Your task to perform on an android device: Open Chrome and go to settings Image 0: 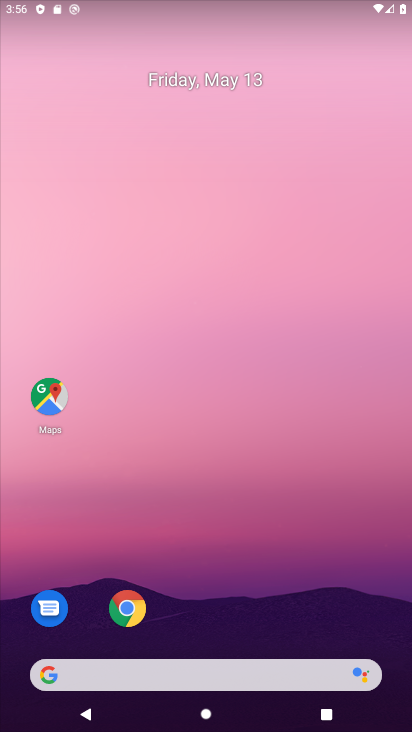
Step 0: drag from (305, 669) to (275, 26)
Your task to perform on an android device: Open Chrome and go to settings Image 1: 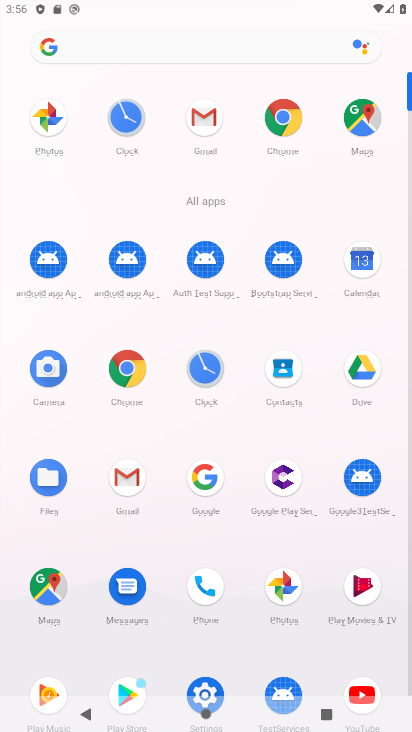
Step 1: click (125, 366)
Your task to perform on an android device: Open Chrome and go to settings Image 2: 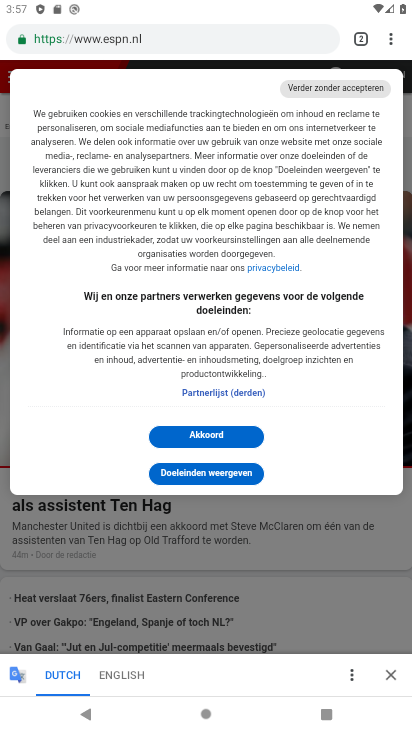
Step 2: click (388, 37)
Your task to perform on an android device: Open Chrome and go to settings Image 3: 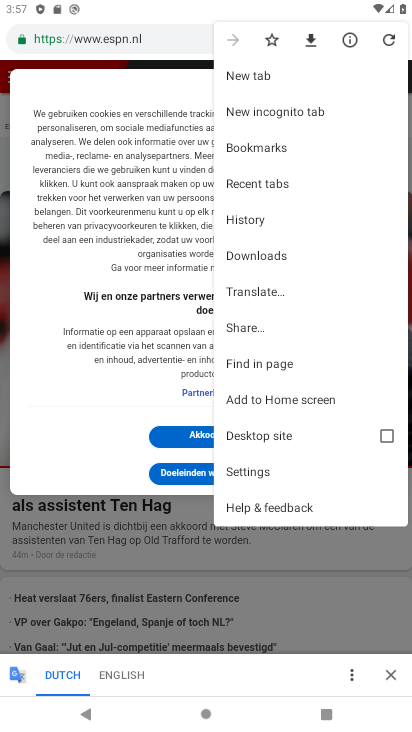
Step 3: click (271, 469)
Your task to perform on an android device: Open Chrome and go to settings Image 4: 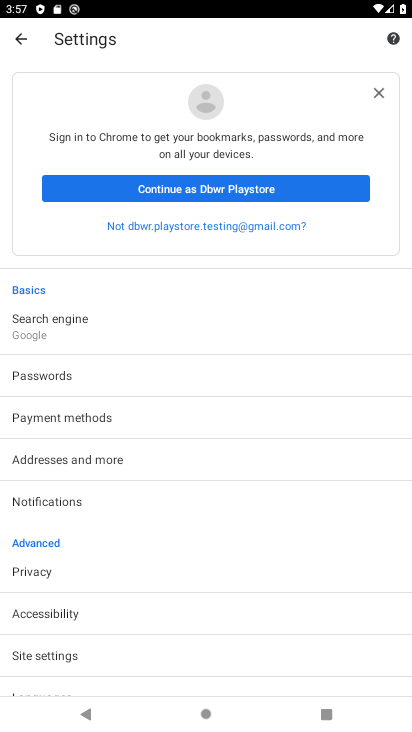
Step 4: task complete